Your task to perform on an android device: Find coffee shops on Maps Image 0: 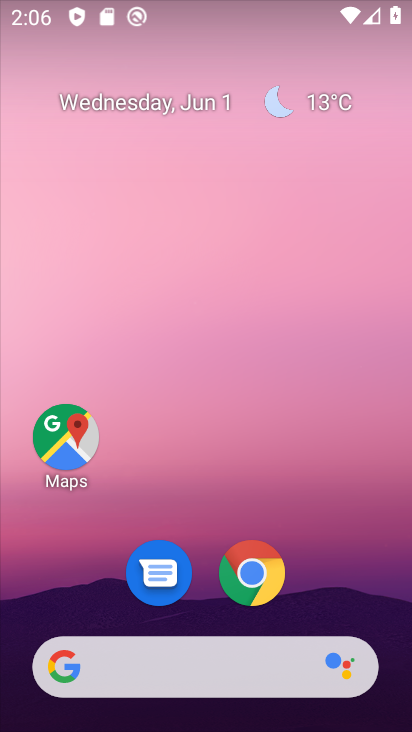
Step 0: click (69, 453)
Your task to perform on an android device: Find coffee shops on Maps Image 1: 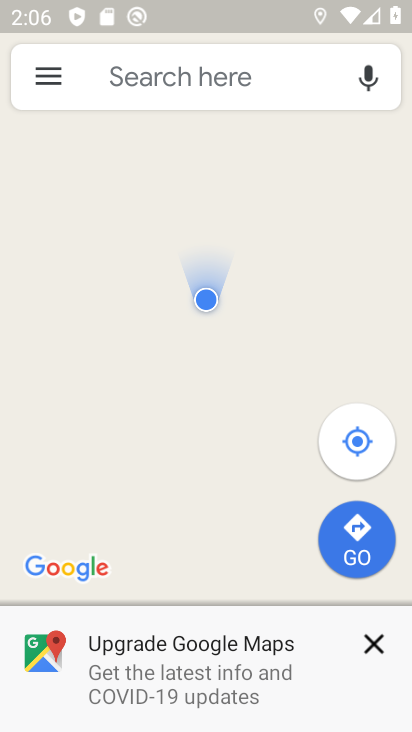
Step 1: click (176, 96)
Your task to perform on an android device: Find coffee shops on Maps Image 2: 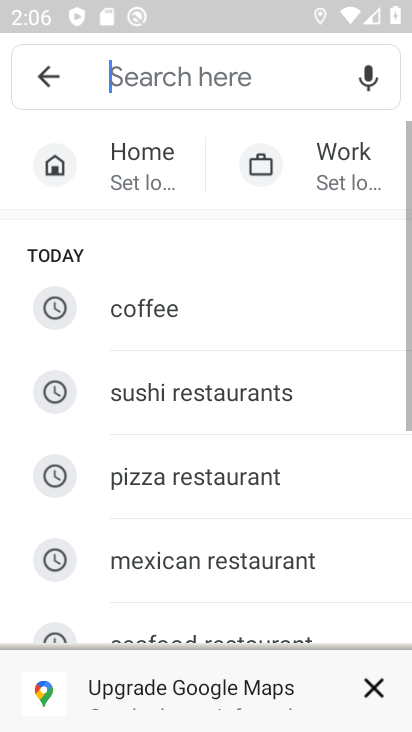
Step 2: click (163, 316)
Your task to perform on an android device: Find coffee shops on Maps Image 3: 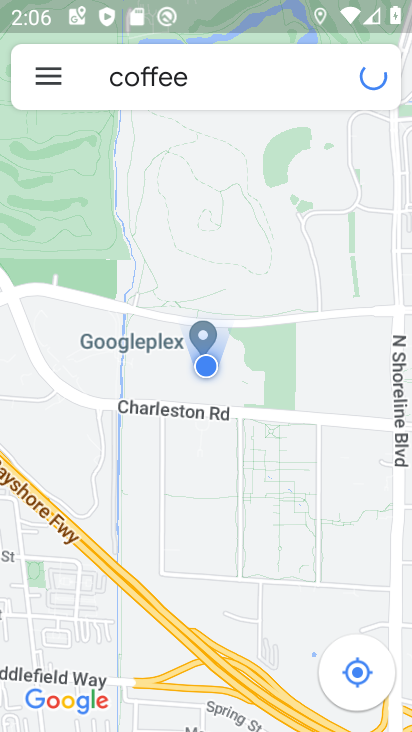
Step 3: task complete